Your task to perform on an android device: open app "LinkedIn" Image 0: 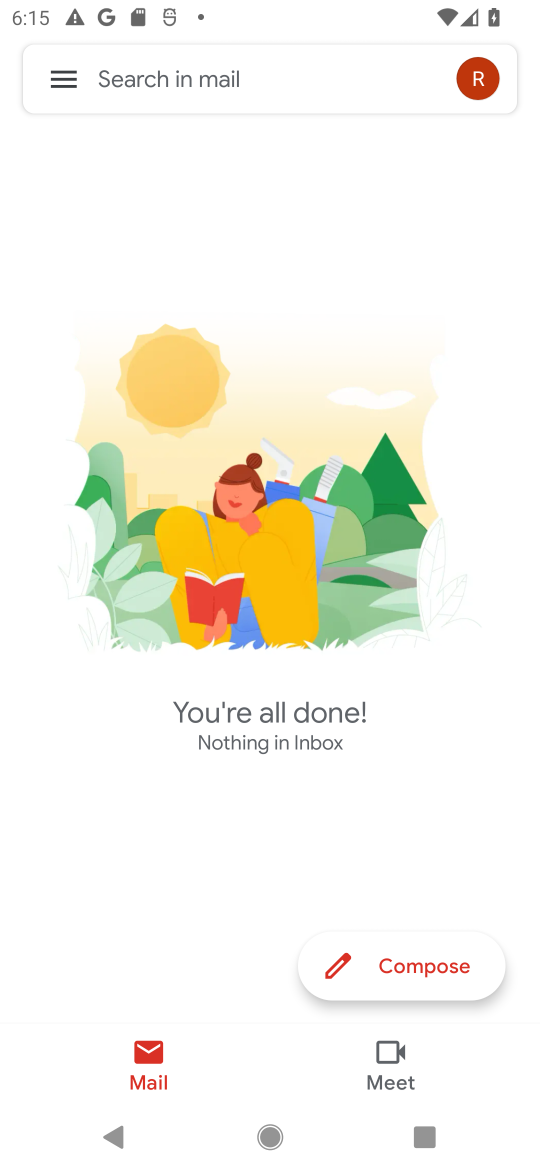
Step 0: press home button
Your task to perform on an android device: open app "LinkedIn" Image 1: 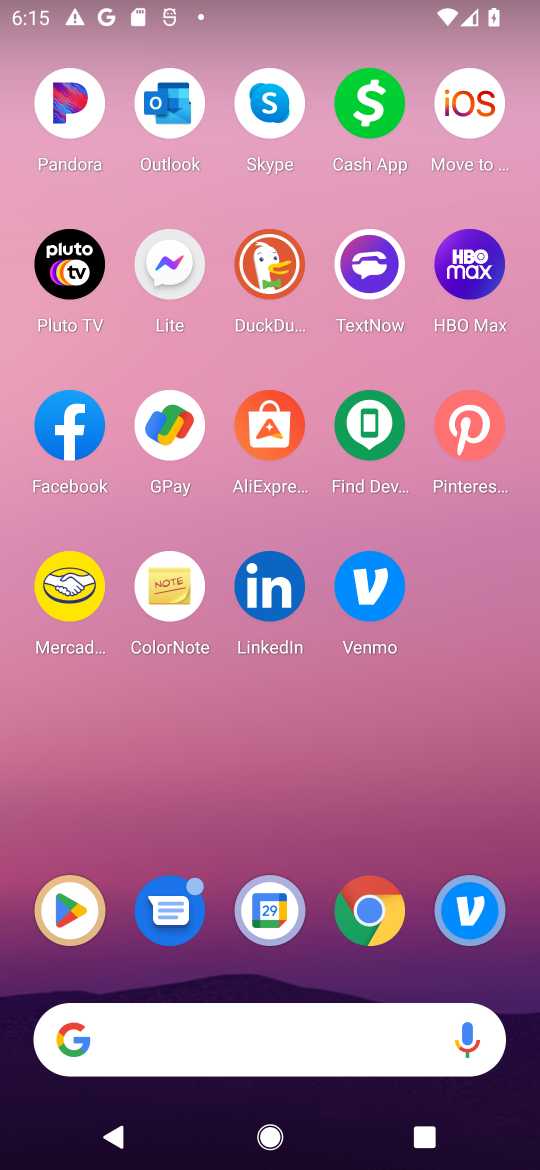
Step 1: click (273, 580)
Your task to perform on an android device: open app "LinkedIn" Image 2: 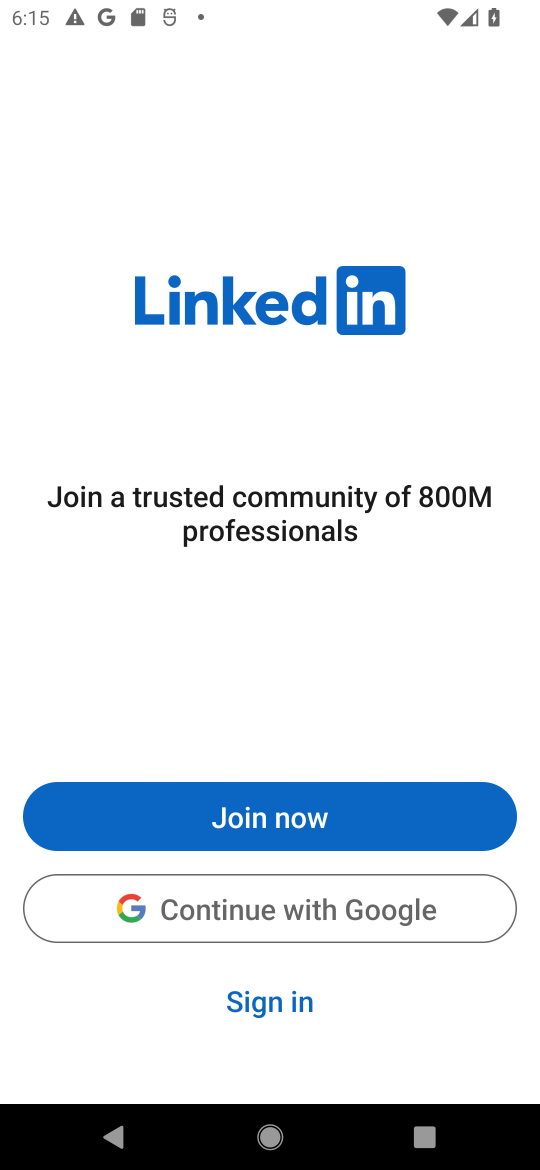
Step 2: task complete